Your task to perform on an android device: check battery use Image 0: 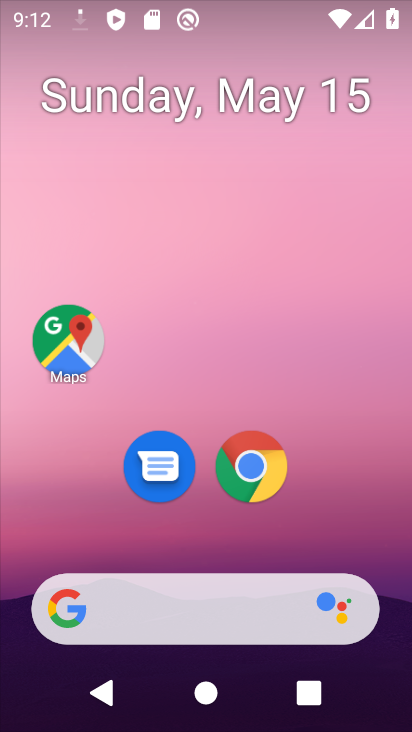
Step 0: drag from (334, 187) to (320, 62)
Your task to perform on an android device: check battery use Image 1: 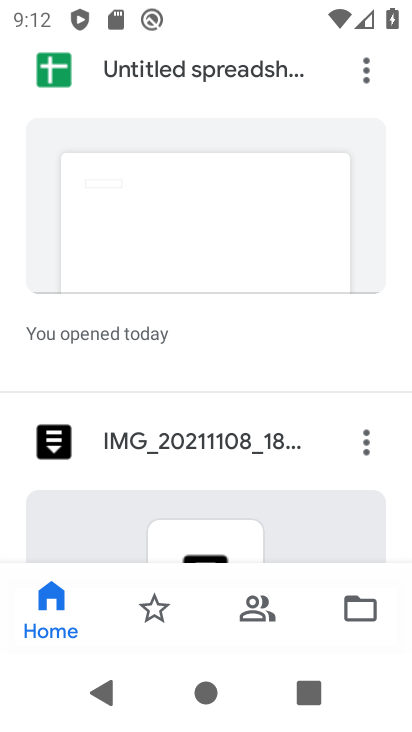
Step 1: press home button
Your task to perform on an android device: check battery use Image 2: 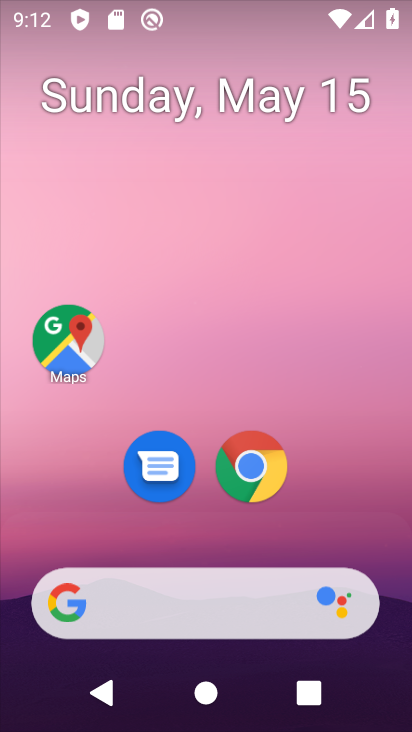
Step 2: drag from (347, 483) to (317, 177)
Your task to perform on an android device: check battery use Image 3: 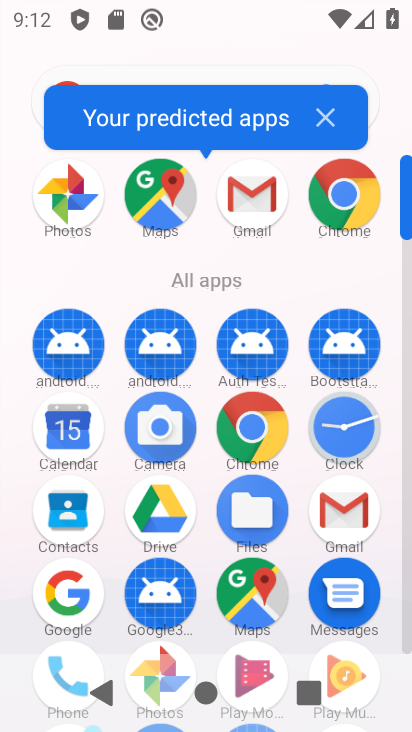
Step 3: drag from (292, 558) to (338, 179)
Your task to perform on an android device: check battery use Image 4: 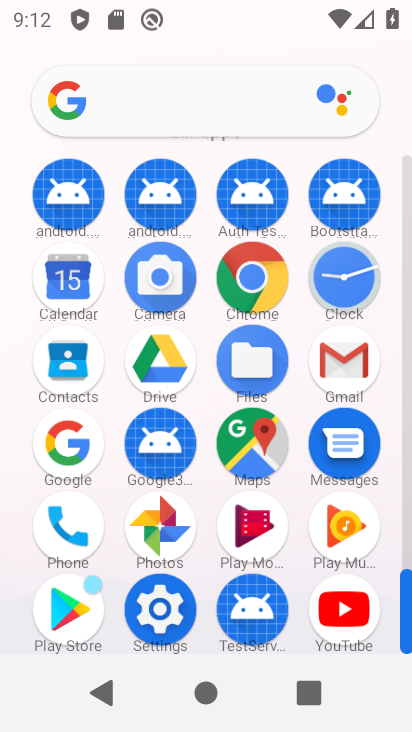
Step 4: click (166, 580)
Your task to perform on an android device: check battery use Image 5: 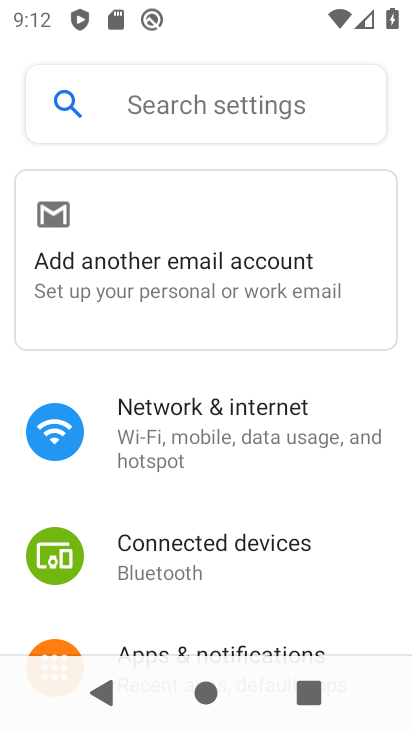
Step 5: drag from (272, 587) to (285, 0)
Your task to perform on an android device: check battery use Image 6: 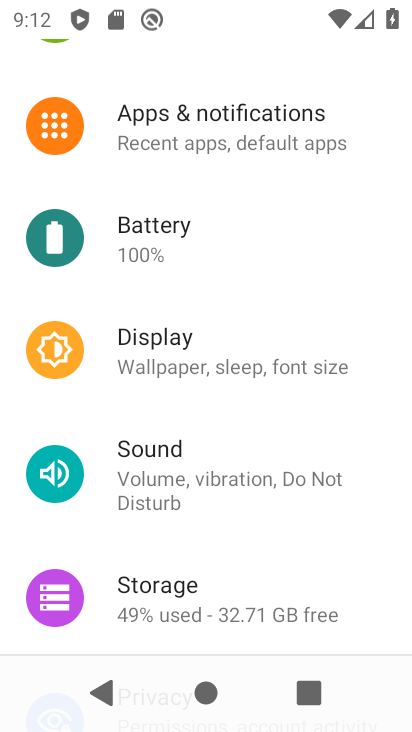
Step 6: click (190, 247)
Your task to perform on an android device: check battery use Image 7: 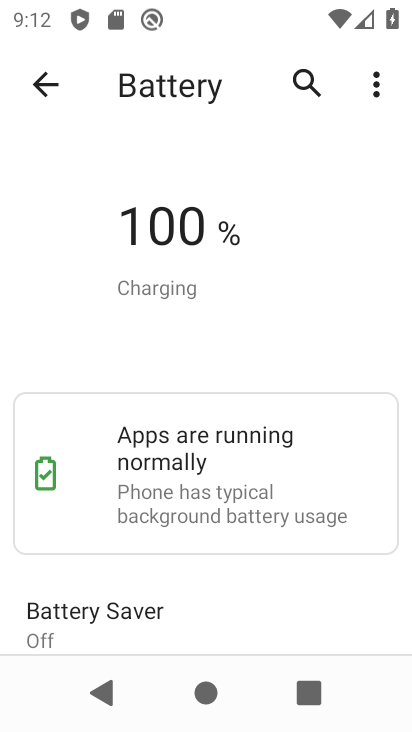
Step 7: task complete